Your task to perform on an android device: clear all cookies in the chrome app Image 0: 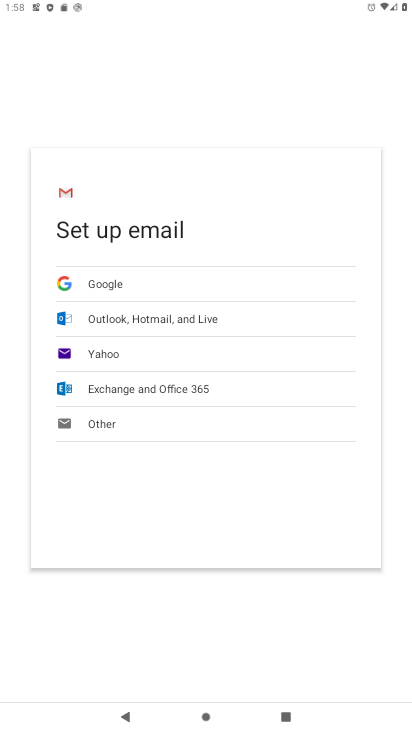
Step 0: press home button
Your task to perform on an android device: clear all cookies in the chrome app Image 1: 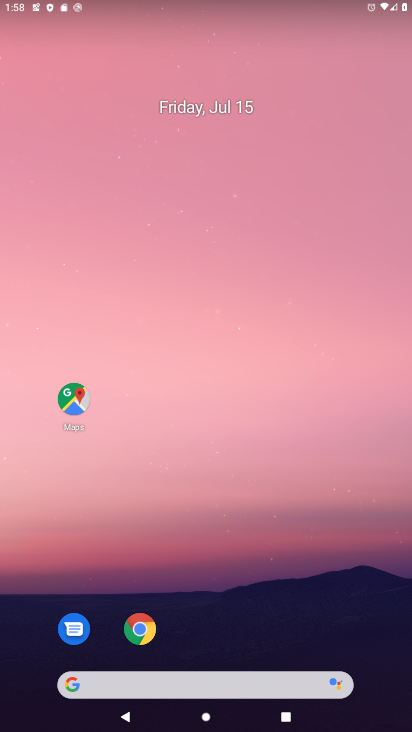
Step 1: drag from (281, 634) to (276, 190)
Your task to perform on an android device: clear all cookies in the chrome app Image 2: 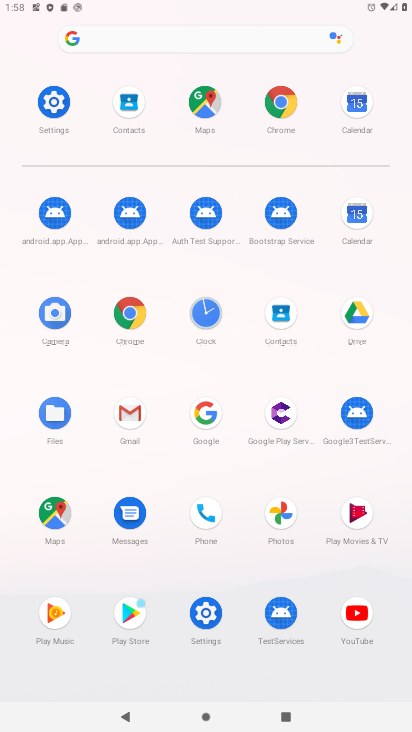
Step 2: click (278, 108)
Your task to perform on an android device: clear all cookies in the chrome app Image 3: 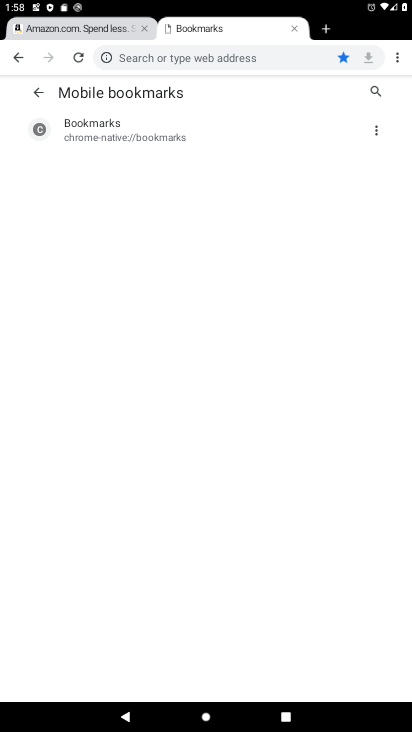
Step 3: click (399, 54)
Your task to perform on an android device: clear all cookies in the chrome app Image 4: 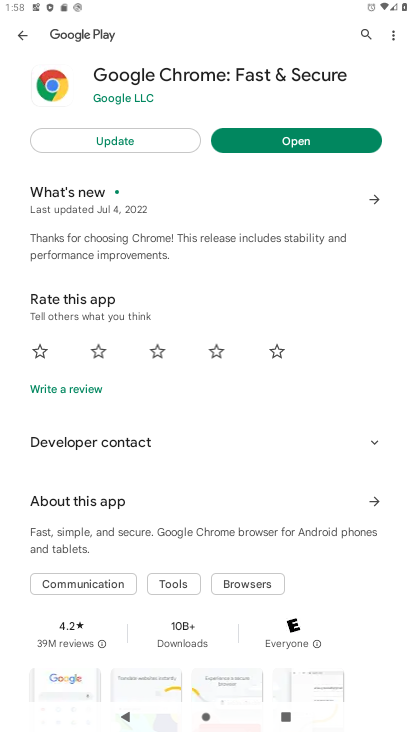
Step 4: click (336, 138)
Your task to perform on an android device: clear all cookies in the chrome app Image 5: 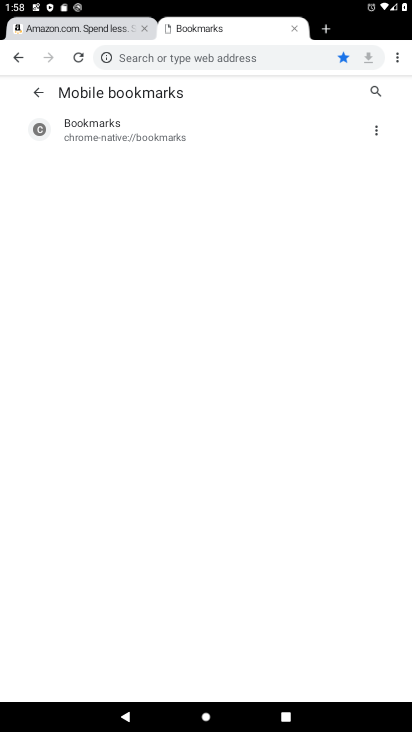
Step 5: drag from (400, 51) to (269, 215)
Your task to perform on an android device: clear all cookies in the chrome app Image 6: 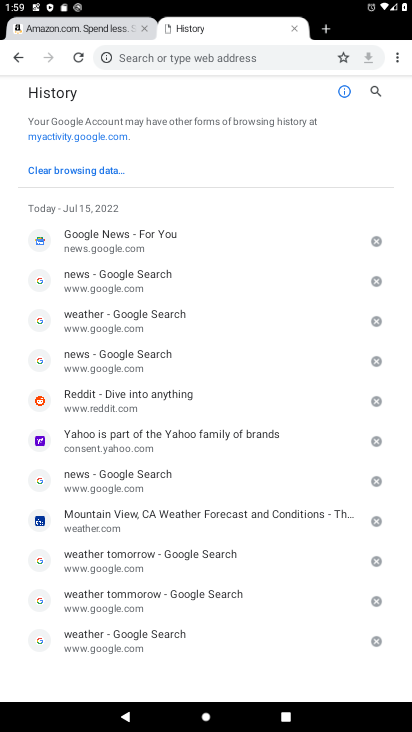
Step 6: click (88, 167)
Your task to perform on an android device: clear all cookies in the chrome app Image 7: 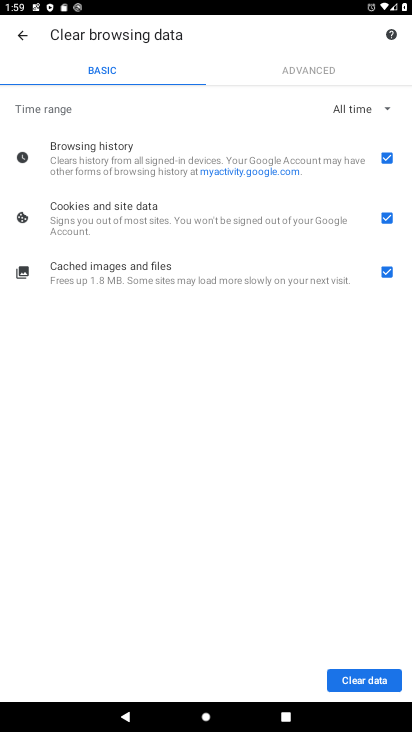
Step 7: click (384, 682)
Your task to perform on an android device: clear all cookies in the chrome app Image 8: 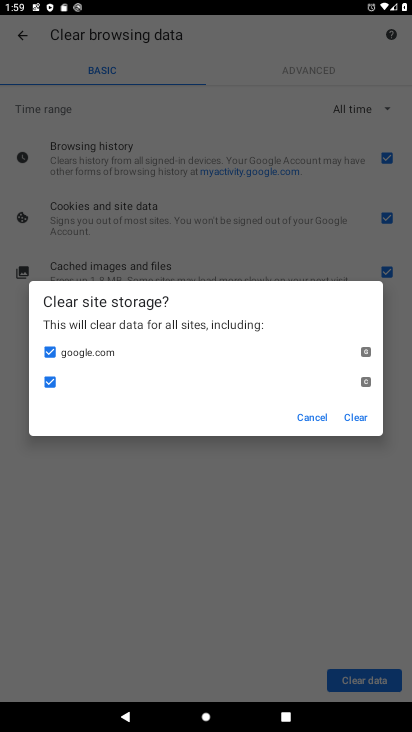
Step 8: click (357, 418)
Your task to perform on an android device: clear all cookies in the chrome app Image 9: 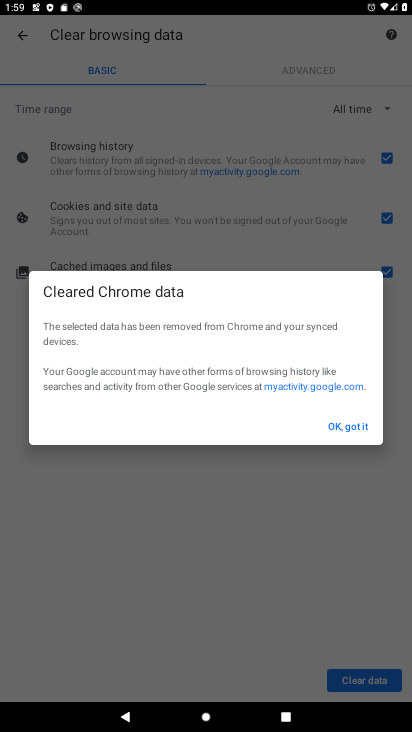
Step 9: task complete